Your task to perform on an android device: turn notification dots on Image 0: 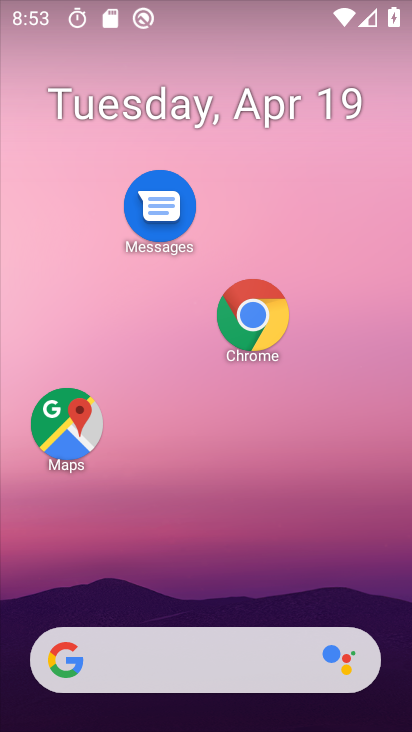
Step 0: drag from (181, 278) to (201, 49)
Your task to perform on an android device: turn notification dots on Image 1: 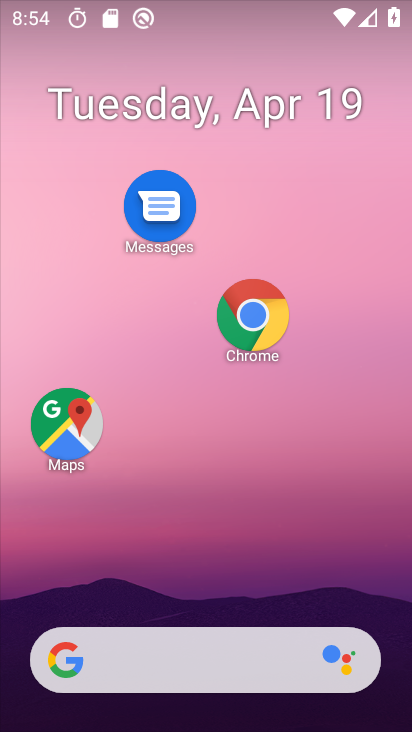
Step 1: drag from (232, 667) to (227, 108)
Your task to perform on an android device: turn notification dots on Image 2: 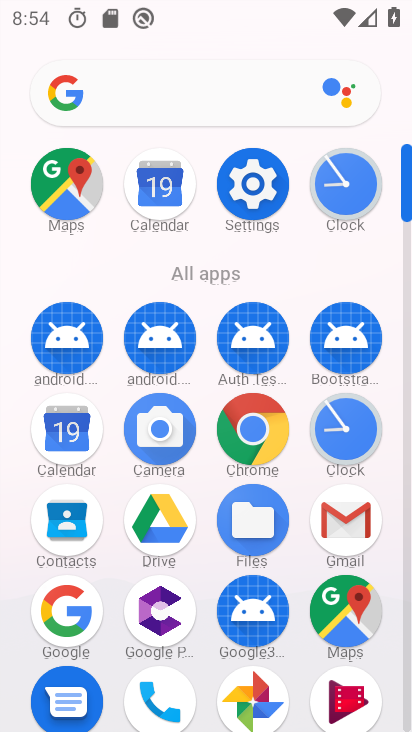
Step 2: click (235, 179)
Your task to perform on an android device: turn notification dots on Image 3: 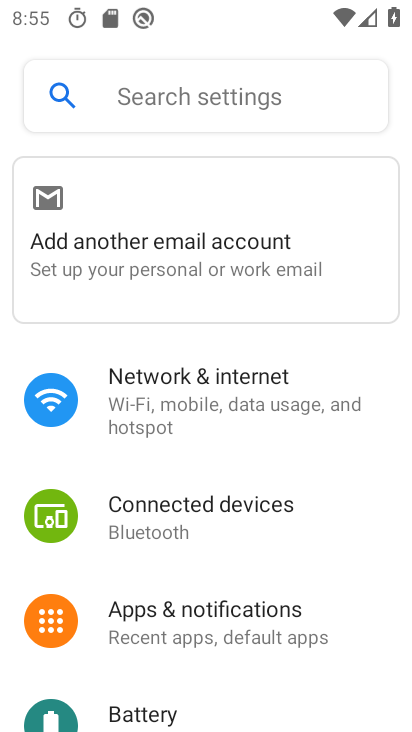
Step 3: drag from (212, 674) to (198, 351)
Your task to perform on an android device: turn notification dots on Image 4: 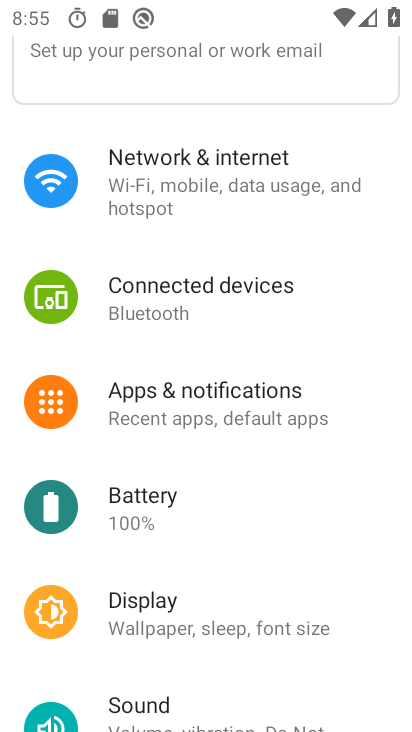
Step 4: click (222, 406)
Your task to perform on an android device: turn notification dots on Image 5: 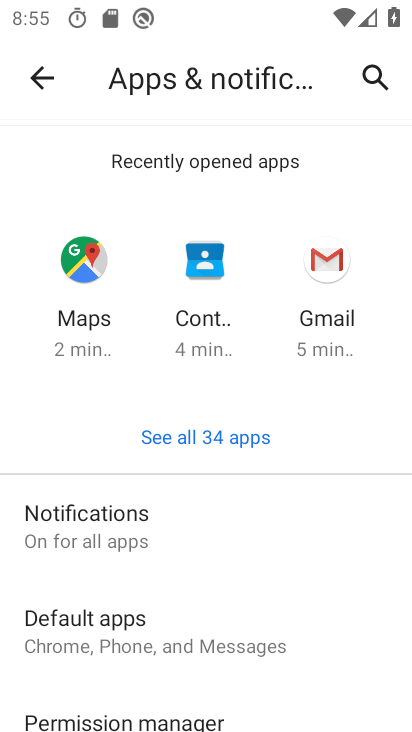
Step 5: drag from (116, 631) to (104, 330)
Your task to perform on an android device: turn notification dots on Image 6: 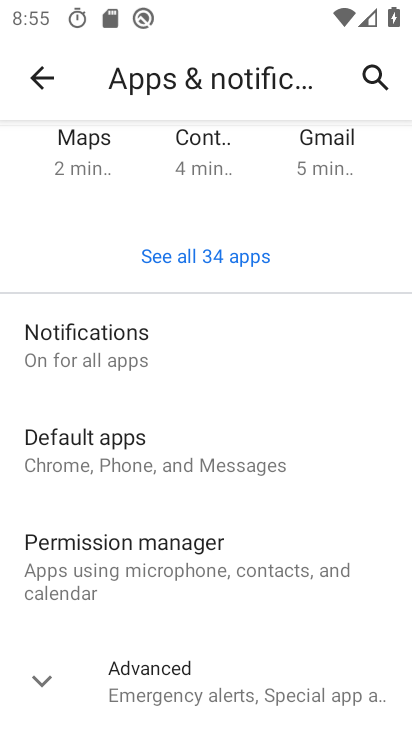
Step 6: click (93, 345)
Your task to perform on an android device: turn notification dots on Image 7: 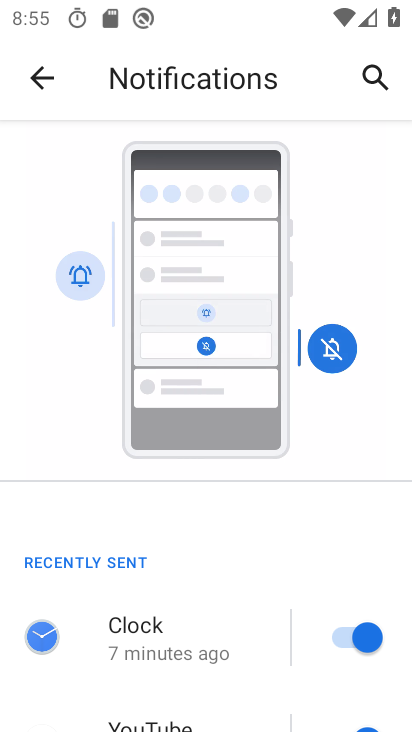
Step 7: drag from (139, 620) to (132, 182)
Your task to perform on an android device: turn notification dots on Image 8: 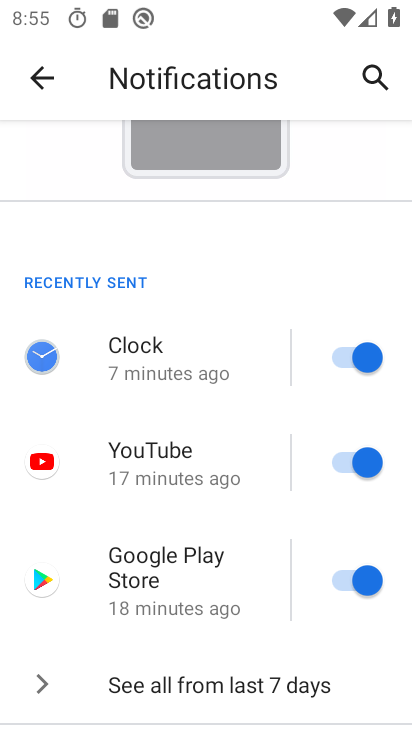
Step 8: drag from (233, 662) to (203, 241)
Your task to perform on an android device: turn notification dots on Image 9: 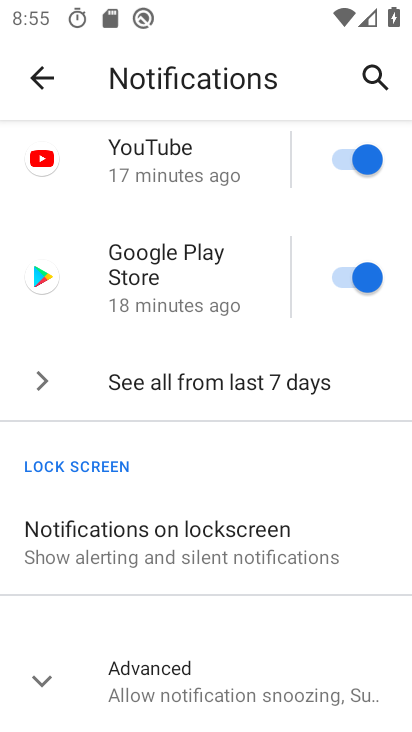
Step 9: click (208, 681)
Your task to perform on an android device: turn notification dots on Image 10: 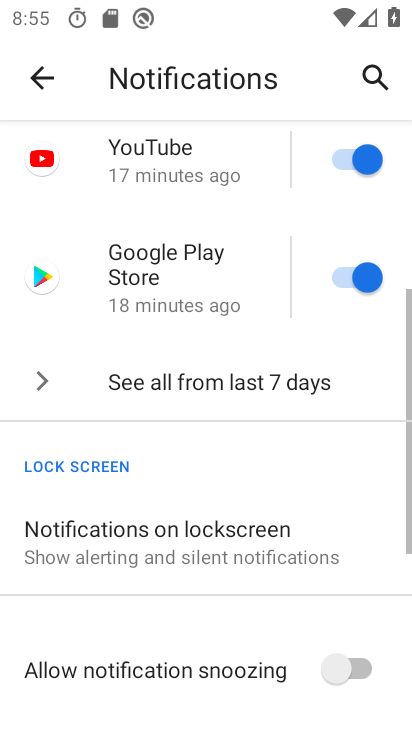
Step 10: task complete